Your task to perform on an android device: Open wifi settings Image 0: 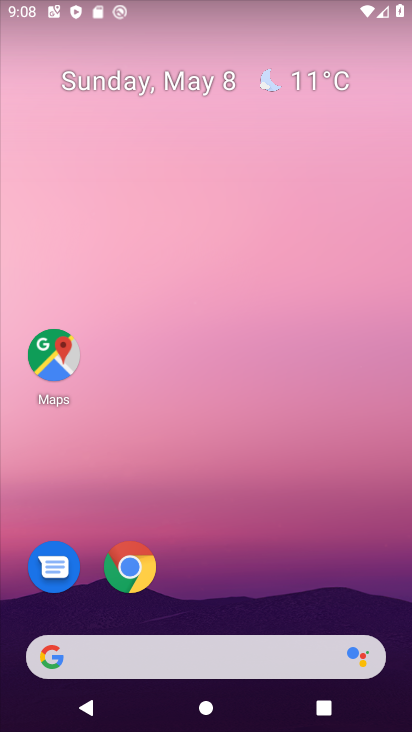
Step 0: drag from (151, 17) to (185, 491)
Your task to perform on an android device: Open wifi settings Image 1: 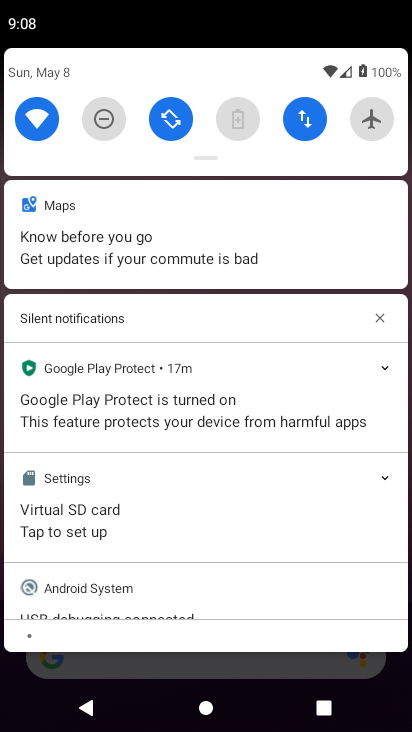
Step 1: click (38, 123)
Your task to perform on an android device: Open wifi settings Image 2: 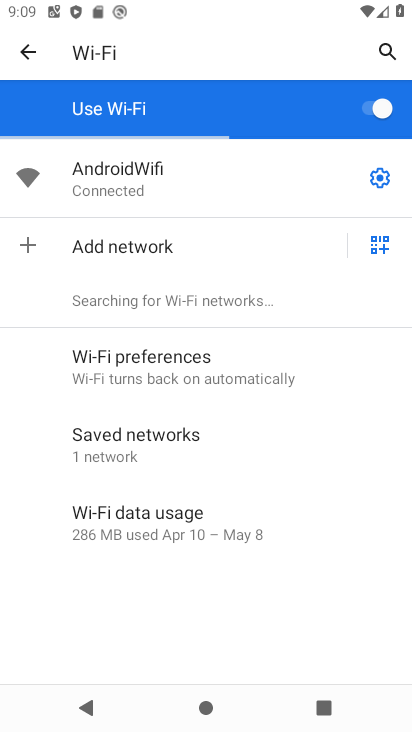
Step 2: task complete